Your task to perform on an android device: Empty the shopping cart on ebay. Add "lenovo thinkpad" to the cart on ebay Image 0: 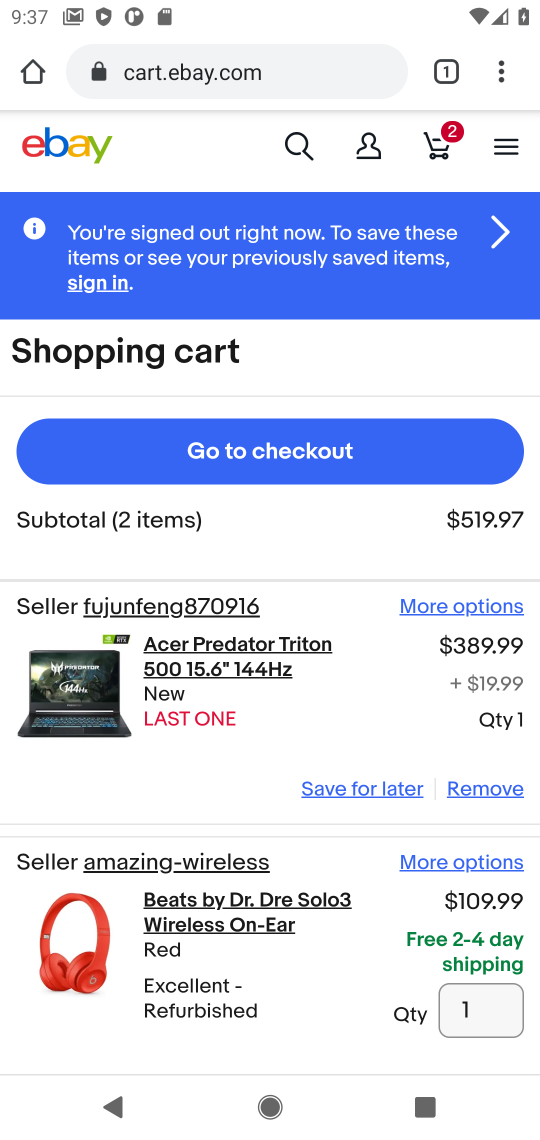
Step 0: click (375, 890)
Your task to perform on an android device: Empty the shopping cart on ebay. Add "lenovo thinkpad" to the cart on ebay Image 1: 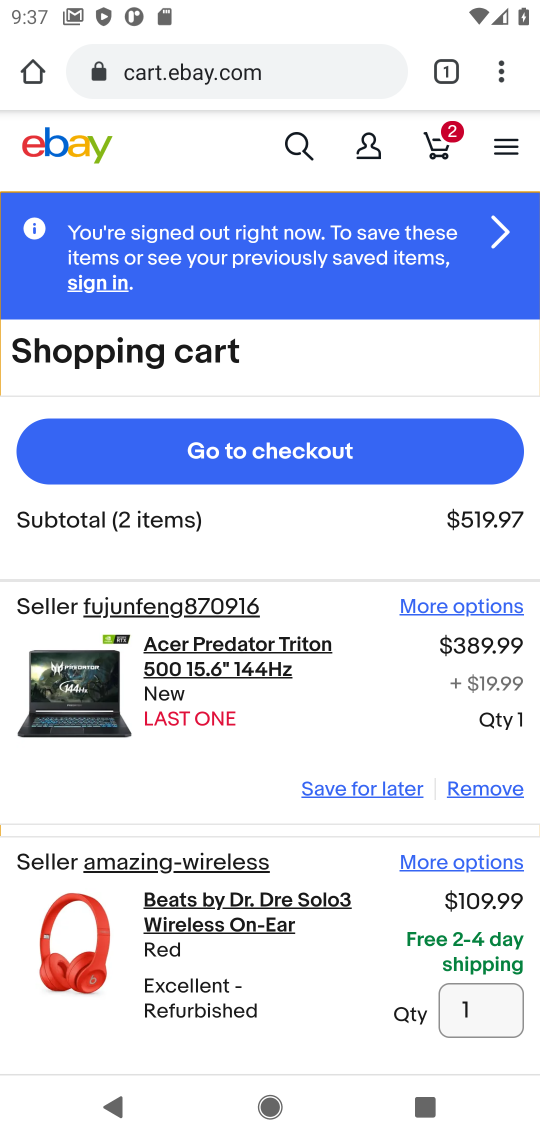
Step 1: click (438, 153)
Your task to perform on an android device: Empty the shopping cart on ebay. Add "lenovo thinkpad" to the cart on ebay Image 2: 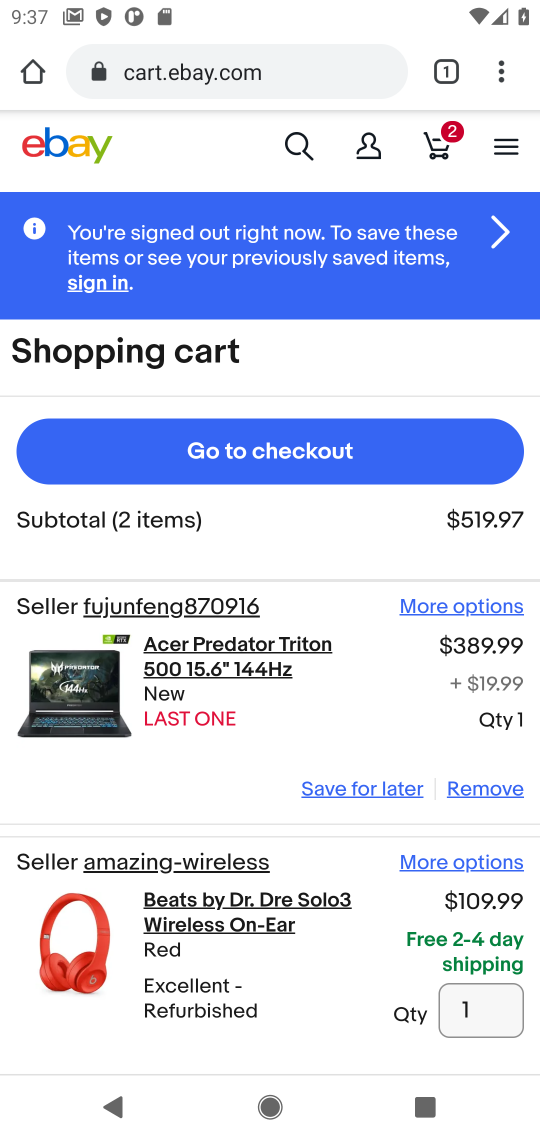
Step 2: click (497, 785)
Your task to perform on an android device: Empty the shopping cart on ebay. Add "lenovo thinkpad" to the cart on ebay Image 3: 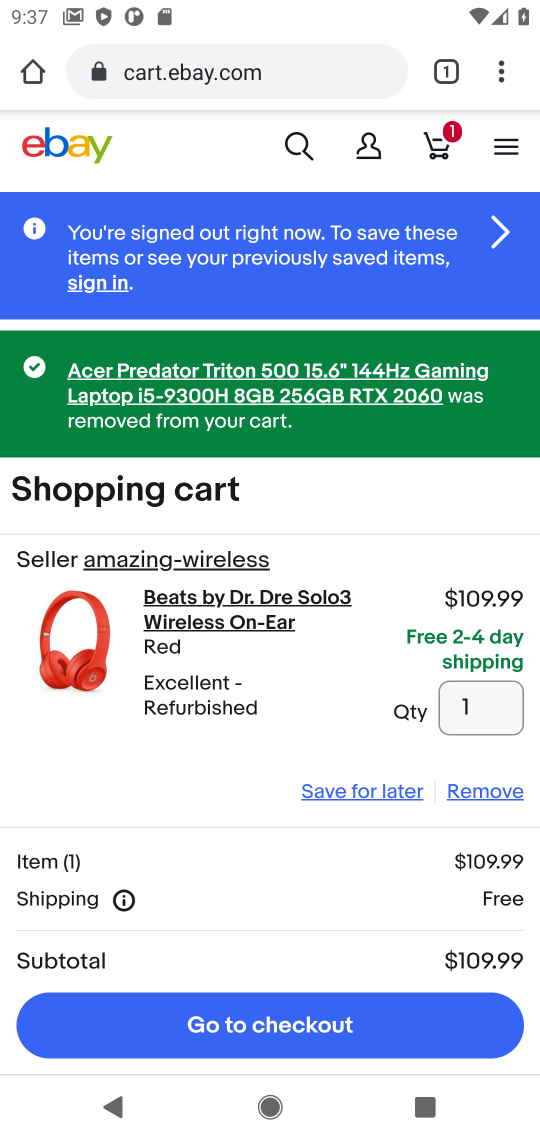
Step 3: click (497, 785)
Your task to perform on an android device: Empty the shopping cart on ebay. Add "lenovo thinkpad" to the cart on ebay Image 4: 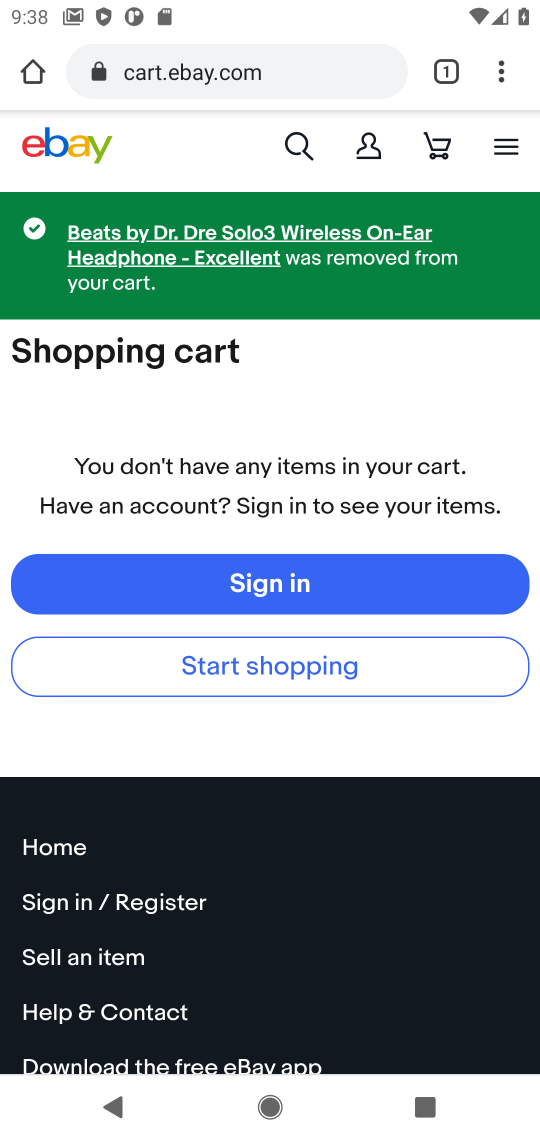
Step 4: click (305, 148)
Your task to perform on an android device: Empty the shopping cart on ebay. Add "lenovo thinkpad" to the cart on ebay Image 5: 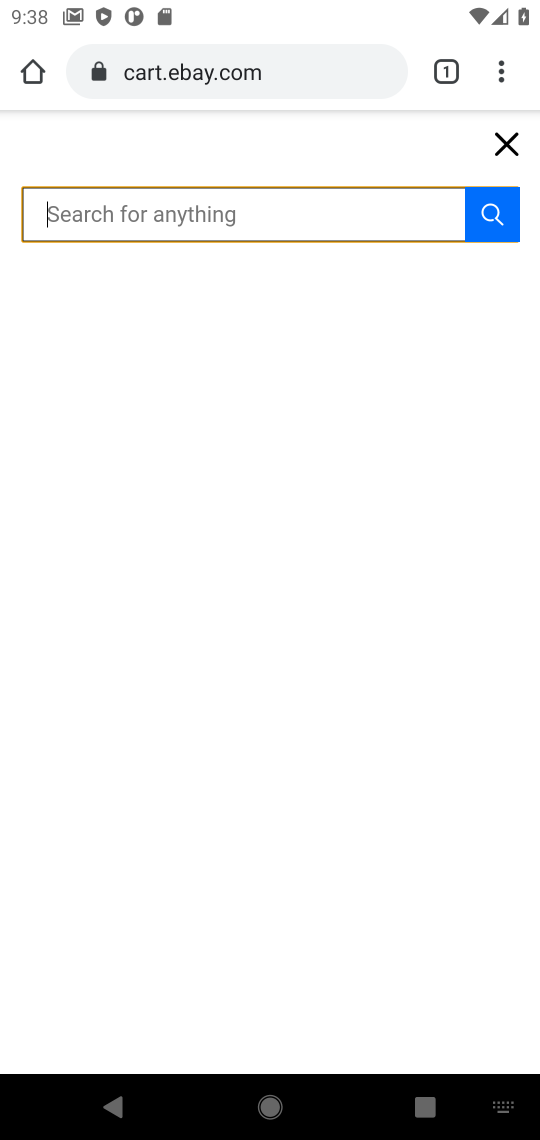
Step 5: press enter
Your task to perform on an android device: Empty the shopping cart on ebay. Add "lenovo thinkpad" to the cart on ebay Image 6: 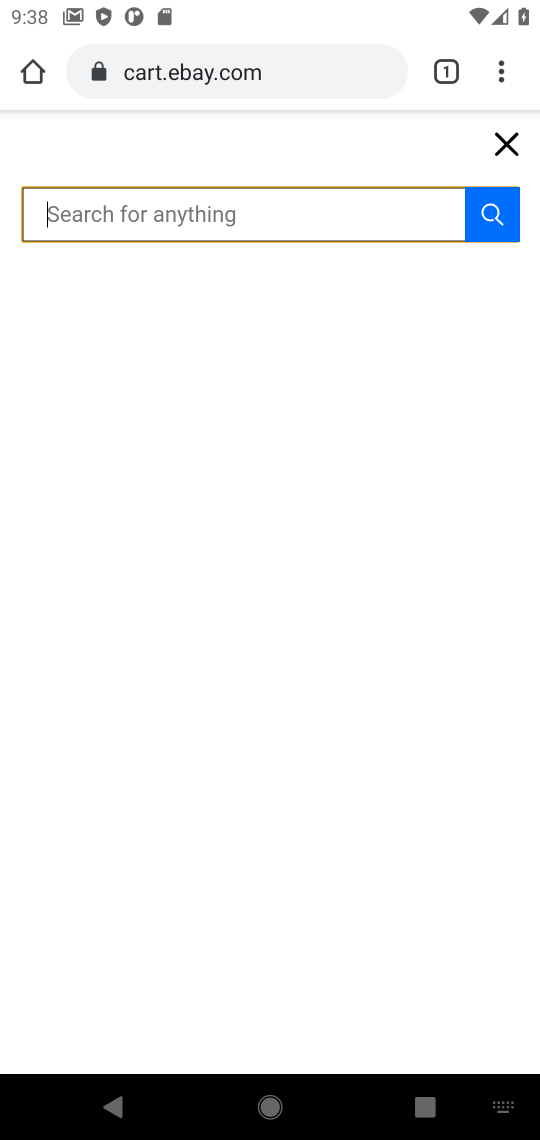
Step 6: type "lenovo thinkpad"
Your task to perform on an android device: Empty the shopping cart on ebay. Add "lenovo thinkpad" to the cart on ebay Image 7: 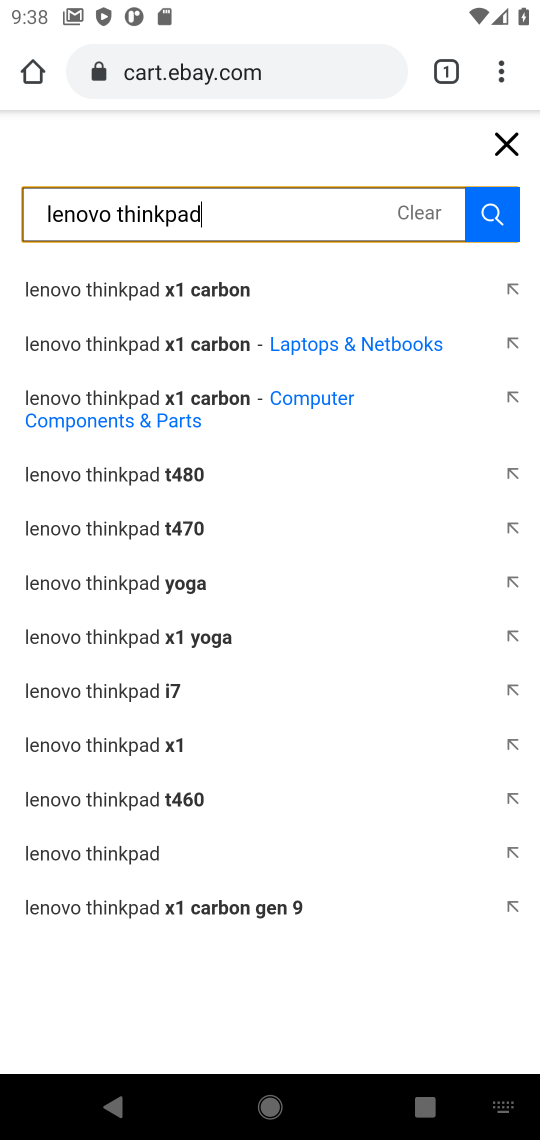
Step 7: click (145, 847)
Your task to perform on an android device: Empty the shopping cart on ebay. Add "lenovo thinkpad" to the cart on ebay Image 8: 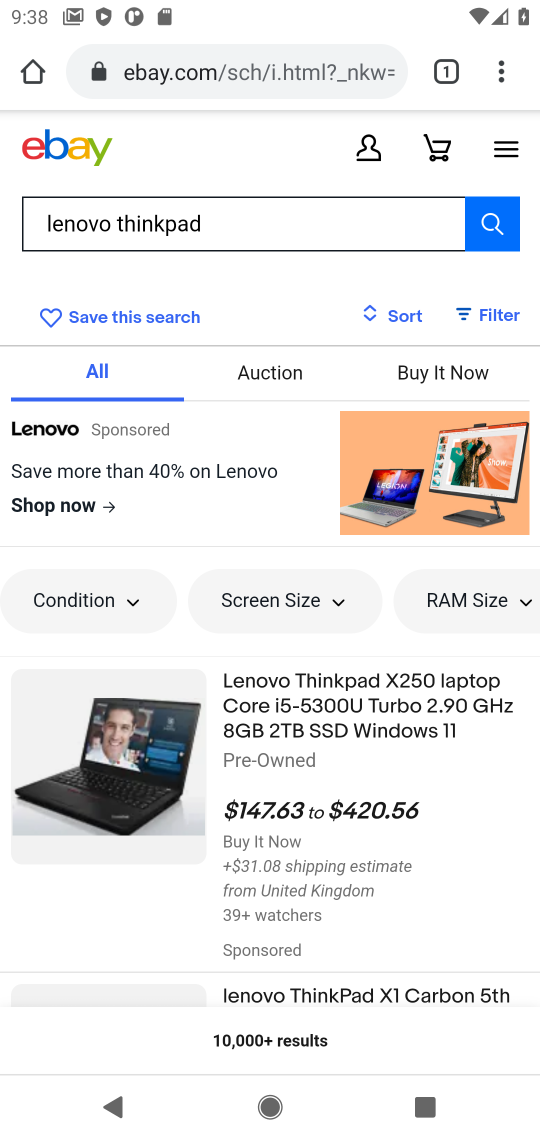
Step 8: click (126, 739)
Your task to perform on an android device: Empty the shopping cart on ebay. Add "lenovo thinkpad" to the cart on ebay Image 9: 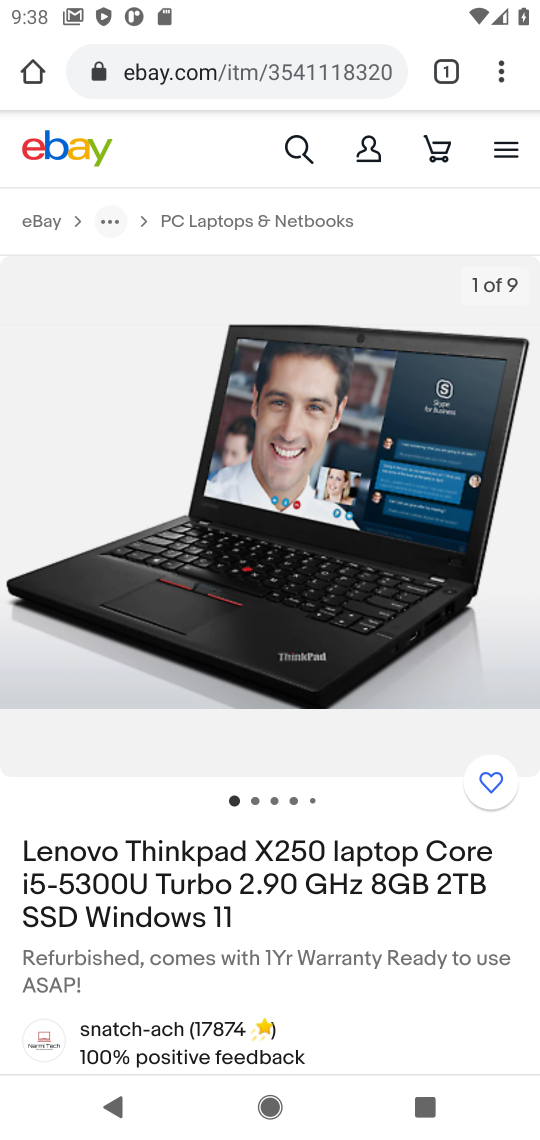
Step 9: drag from (379, 926) to (220, 300)
Your task to perform on an android device: Empty the shopping cart on ebay. Add "lenovo thinkpad" to the cart on ebay Image 10: 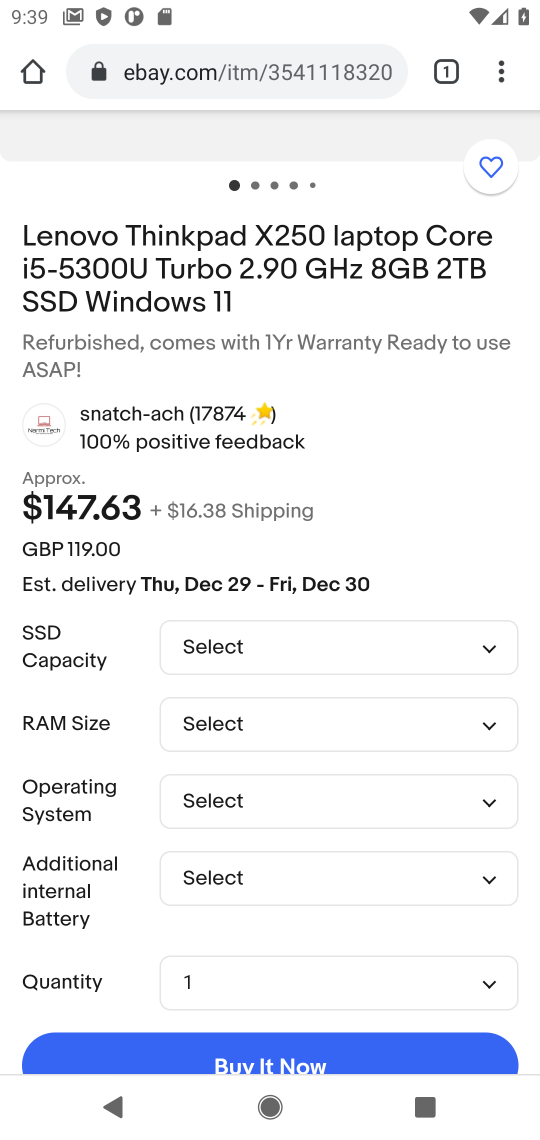
Step 10: press back button
Your task to perform on an android device: Empty the shopping cart on ebay. Add "lenovo thinkpad" to the cart on ebay Image 11: 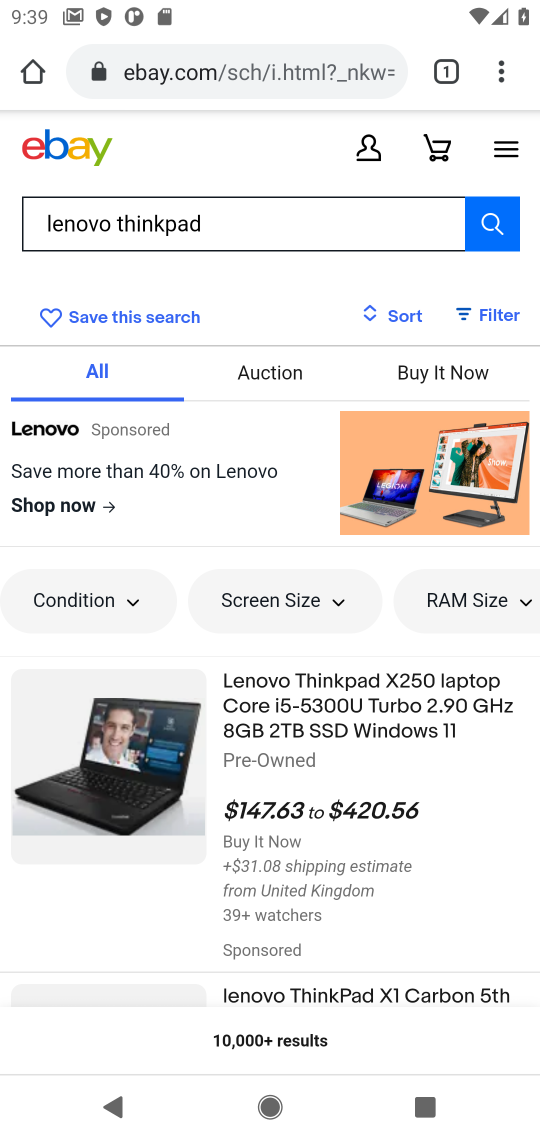
Step 11: drag from (319, 995) to (311, 585)
Your task to perform on an android device: Empty the shopping cart on ebay. Add "lenovo thinkpad" to the cart on ebay Image 12: 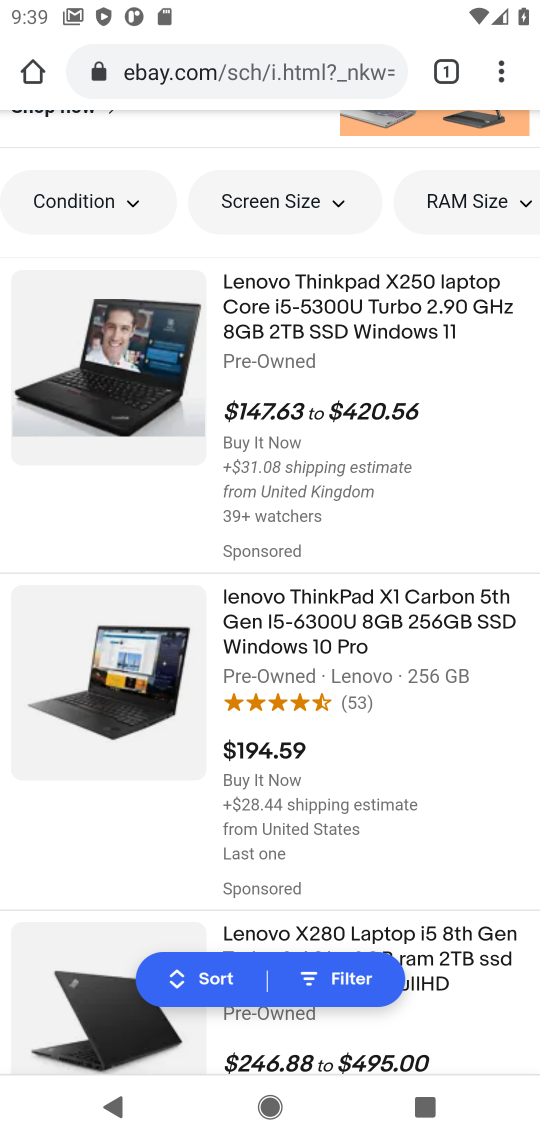
Step 12: click (103, 712)
Your task to perform on an android device: Empty the shopping cart on ebay. Add "lenovo thinkpad" to the cart on ebay Image 13: 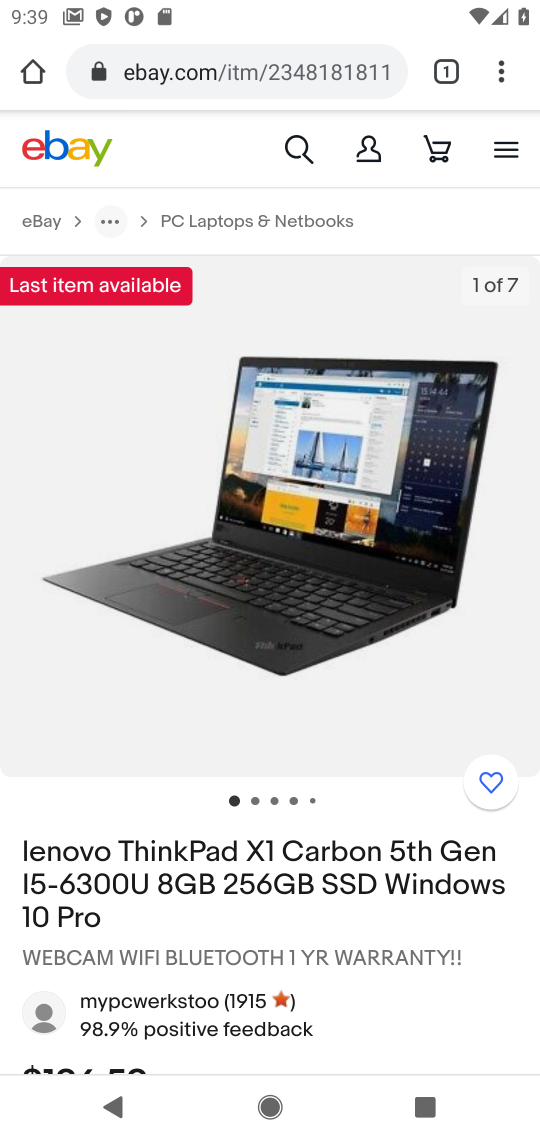
Step 13: drag from (419, 795) to (440, 563)
Your task to perform on an android device: Empty the shopping cart on ebay. Add "lenovo thinkpad" to the cart on ebay Image 14: 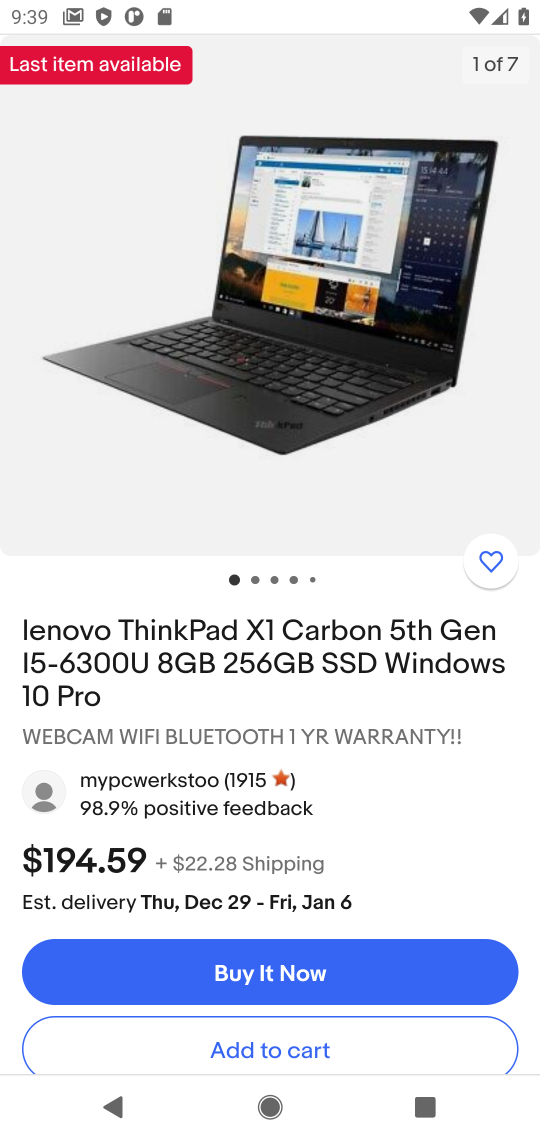
Step 14: click (357, 1047)
Your task to perform on an android device: Empty the shopping cart on ebay. Add "lenovo thinkpad" to the cart on ebay Image 15: 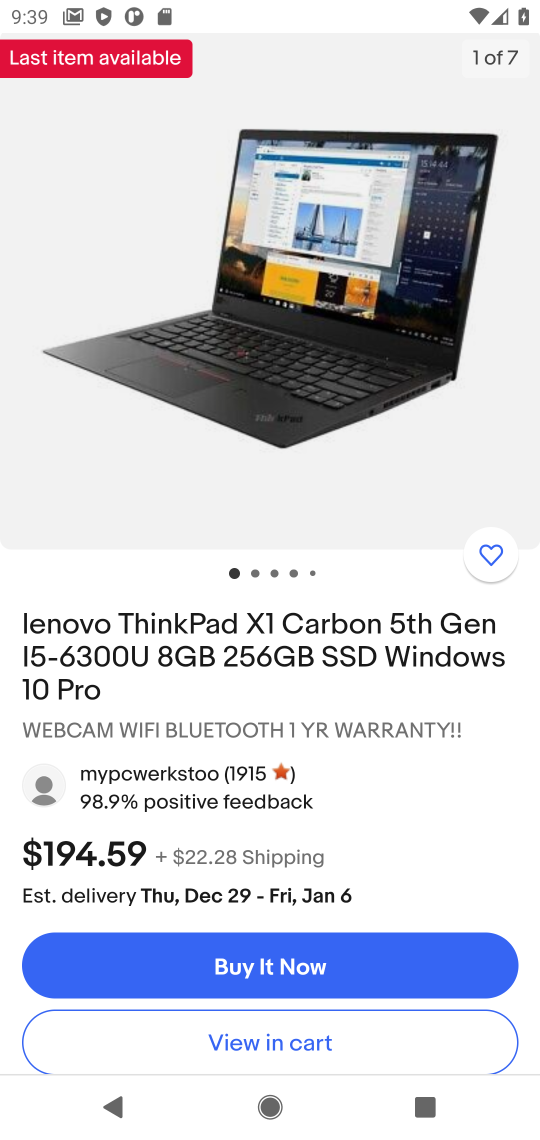
Step 15: click (357, 1047)
Your task to perform on an android device: Empty the shopping cart on ebay. Add "lenovo thinkpad" to the cart on ebay Image 16: 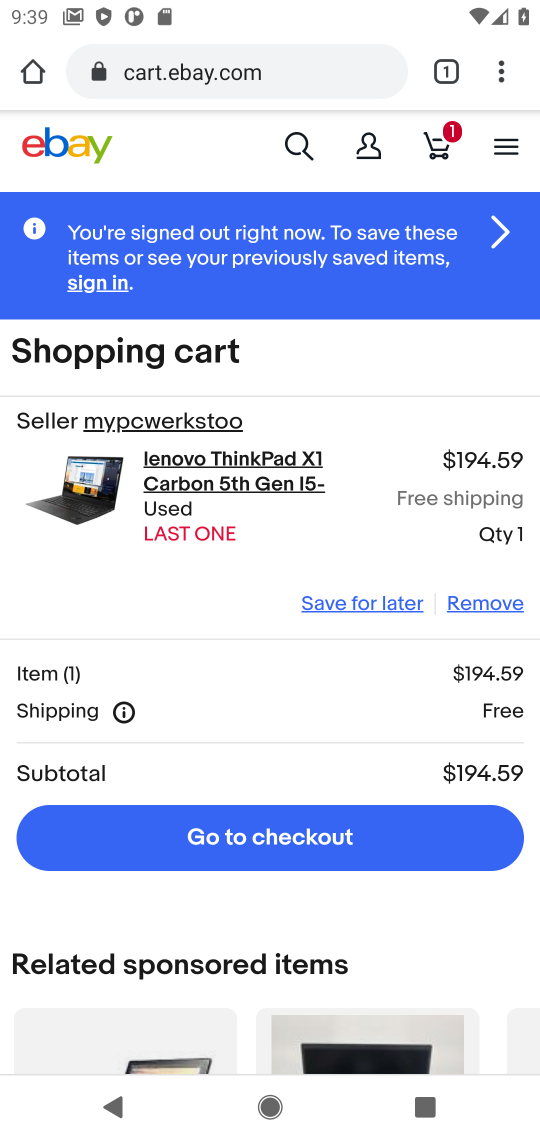
Step 16: task complete